Your task to perform on an android device: check android version Image 0: 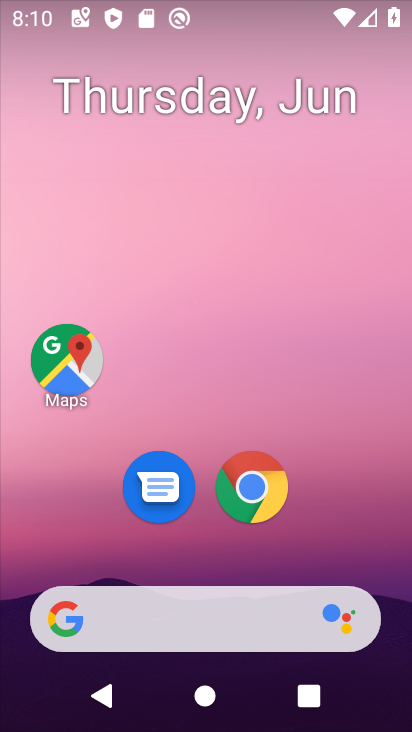
Step 0: drag from (196, 576) to (240, 41)
Your task to perform on an android device: check android version Image 1: 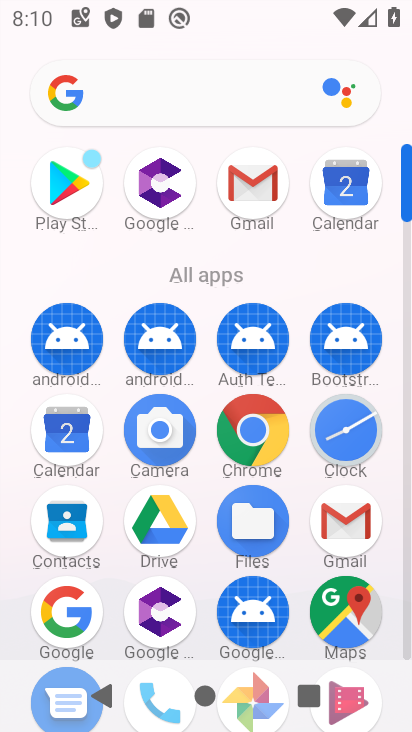
Step 1: drag from (202, 554) to (195, 83)
Your task to perform on an android device: check android version Image 2: 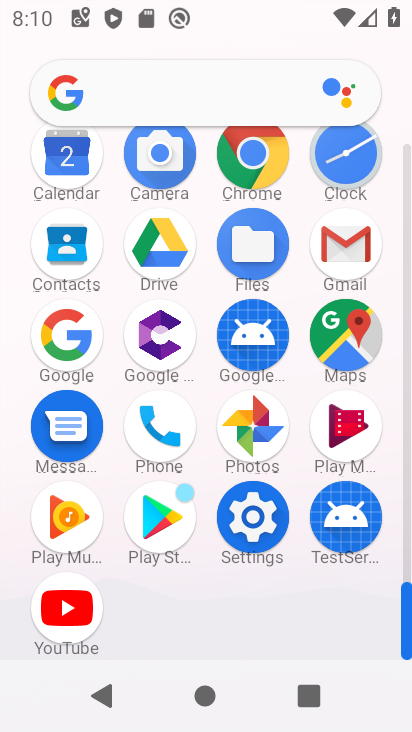
Step 2: click (247, 520)
Your task to perform on an android device: check android version Image 3: 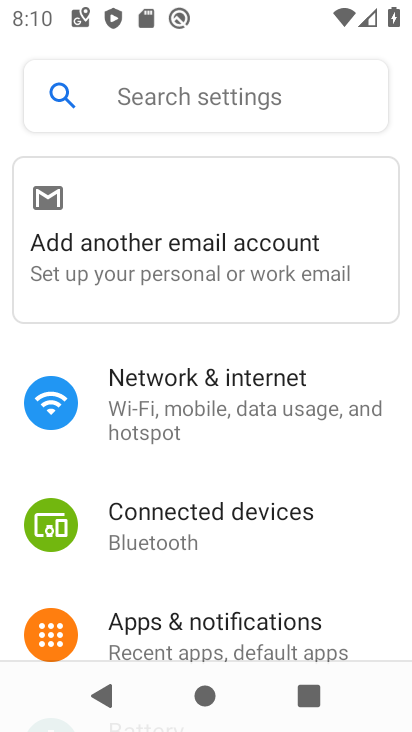
Step 3: drag from (200, 601) to (232, 76)
Your task to perform on an android device: check android version Image 4: 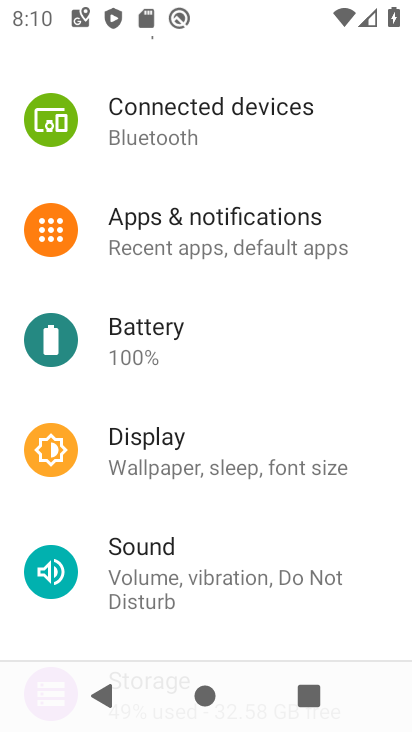
Step 4: drag from (196, 580) to (280, 177)
Your task to perform on an android device: check android version Image 5: 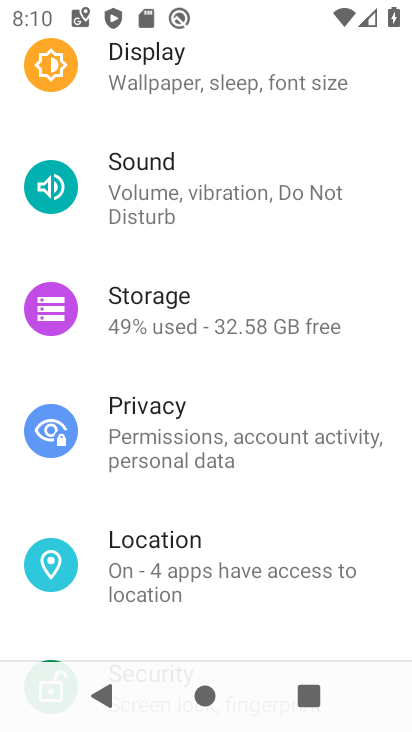
Step 5: drag from (192, 606) to (244, 0)
Your task to perform on an android device: check android version Image 6: 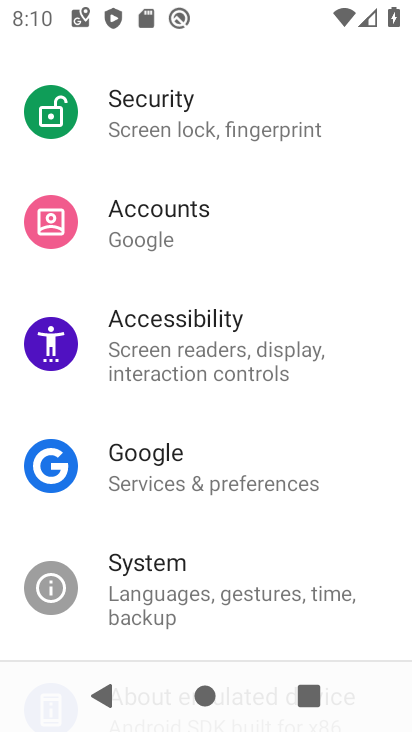
Step 6: drag from (215, 618) to (190, 146)
Your task to perform on an android device: check android version Image 7: 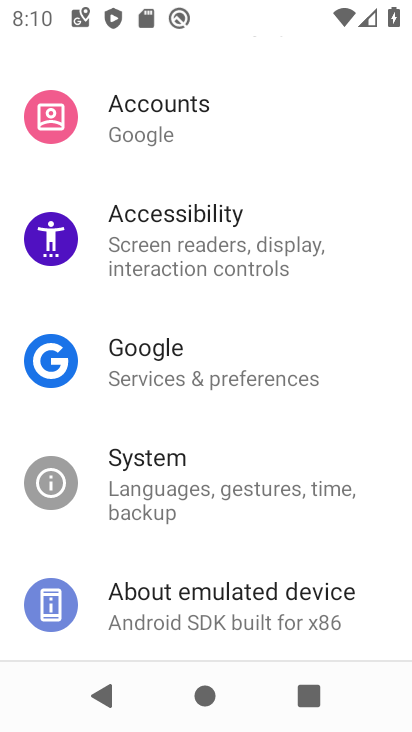
Step 7: click (246, 599)
Your task to perform on an android device: check android version Image 8: 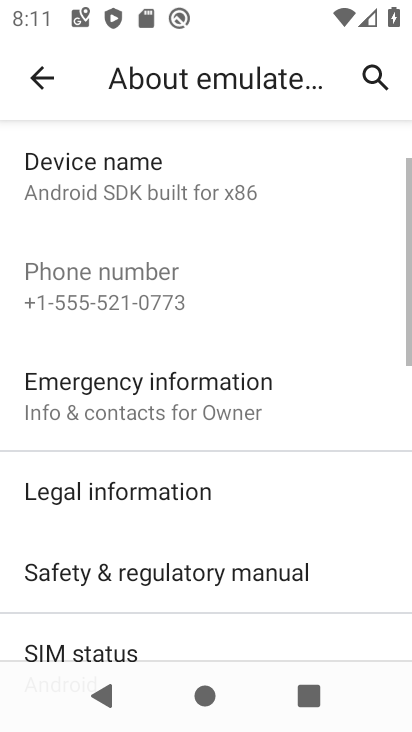
Step 8: drag from (213, 560) to (244, 205)
Your task to perform on an android device: check android version Image 9: 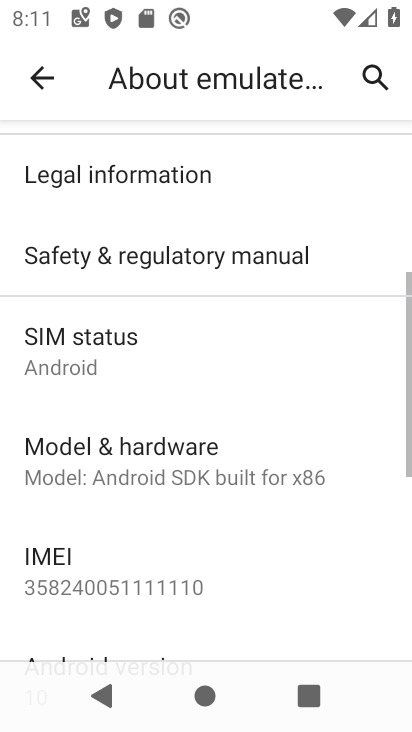
Step 9: drag from (168, 617) to (234, 153)
Your task to perform on an android device: check android version Image 10: 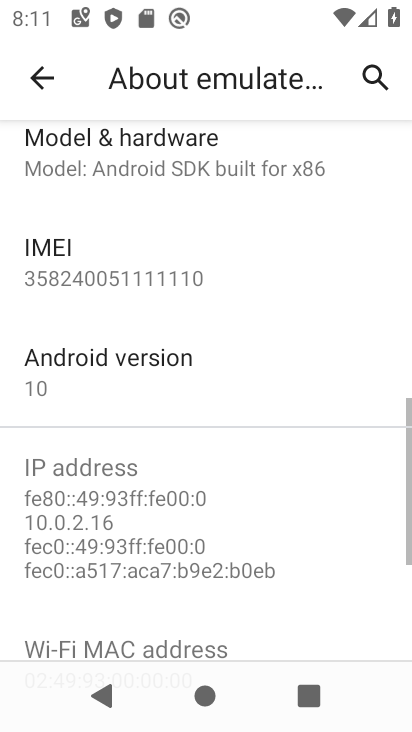
Step 10: click (154, 362)
Your task to perform on an android device: check android version Image 11: 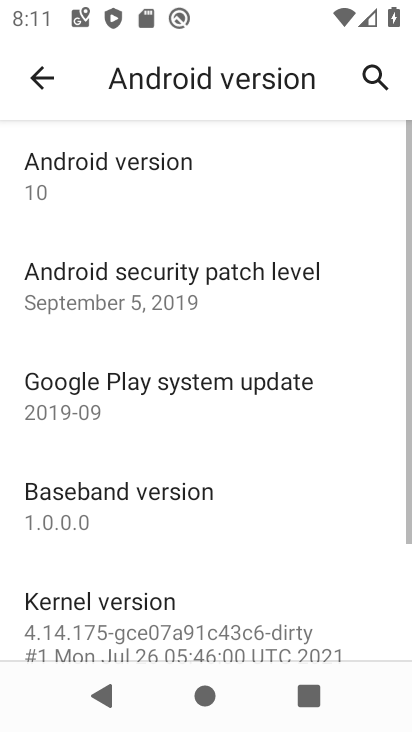
Step 11: task complete